Your task to perform on an android device: Go to ESPN.com Image 0: 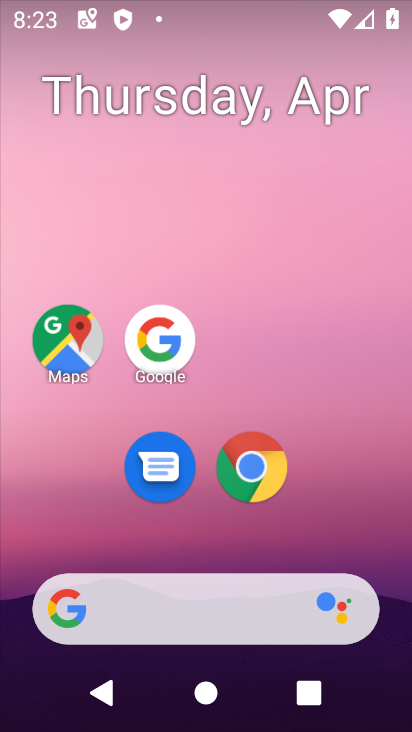
Step 0: click (249, 467)
Your task to perform on an android device: Go to ESPN.com Image 1: 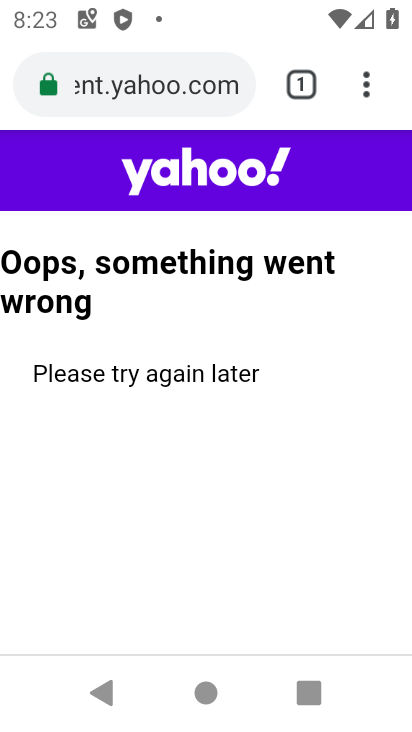
Step 1: click (197, 67)
Your task to perform on an android device: Go to ESPN.com Image 2: 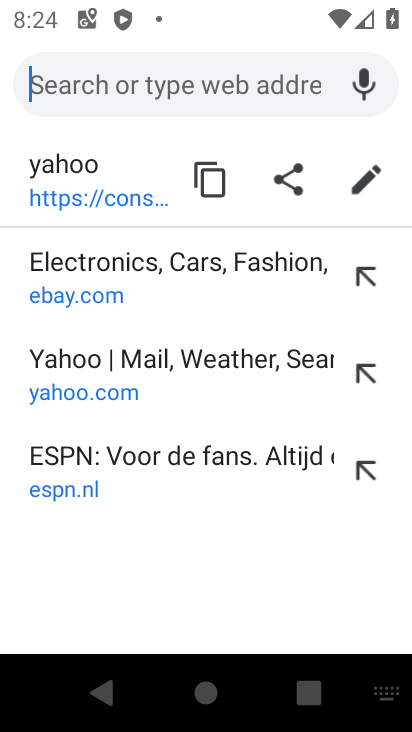
Step 2: type "espn.com"
Your task to perform on an android device: Go to ESPN.com Image 3: 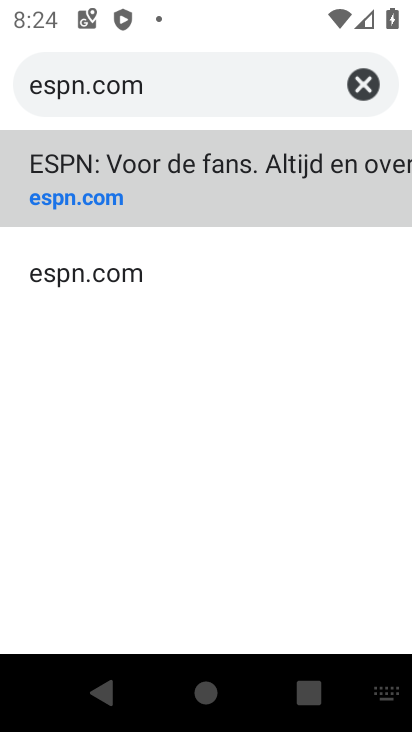
Step 3: click (104, 166)
Your task to perform on an android device: Go to ESPN.com Image 4: 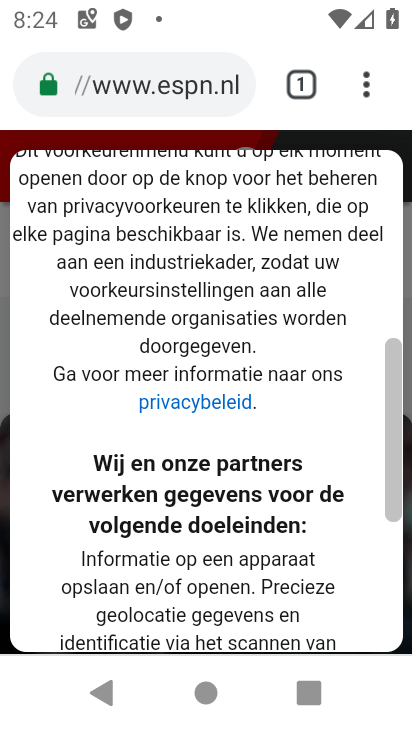
Step 4: task complete